Your task to perform on an android device: turn off data saver in the chrome app Image 0: 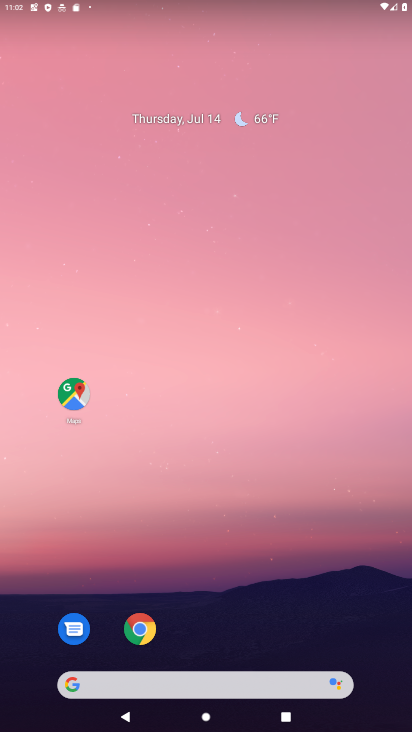
Step 0: click (136, 636)
Your task to perform on an android device: turn off data saver in the chrome app Image 1: 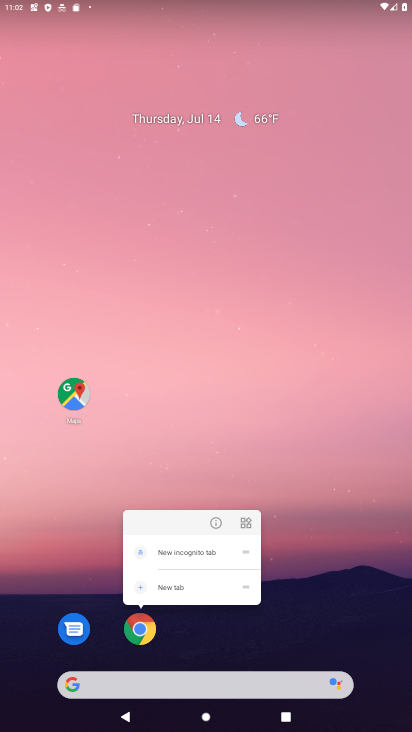
Step 1: click (138, 637)
Your task to perform on an android device: turn off data saver in the chrome app Image 2: 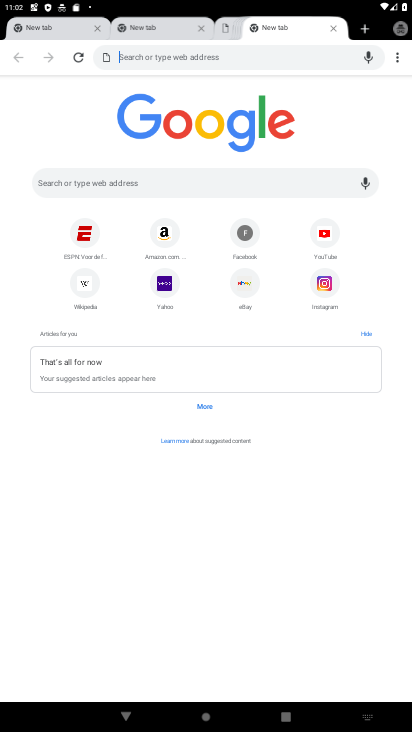
Step 2: drag from (392, 64) to (266, 258)
Your task to perform on an android device: turn off data saver in the chrome app Image 3: 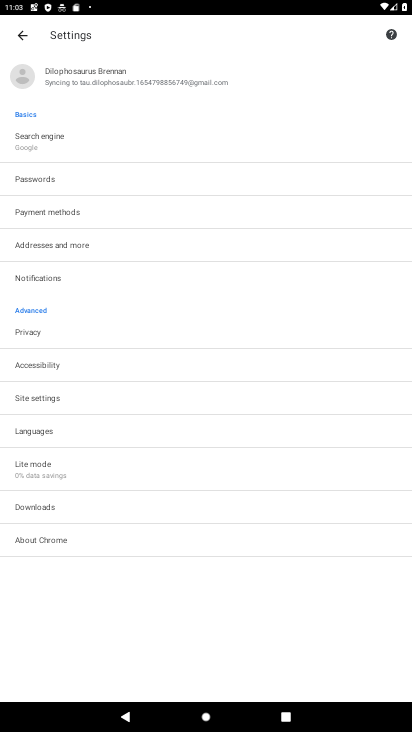
Step 3: click (34, 467)
Your task to perform on an android device: turn off data saver in the chrome app Image 4: 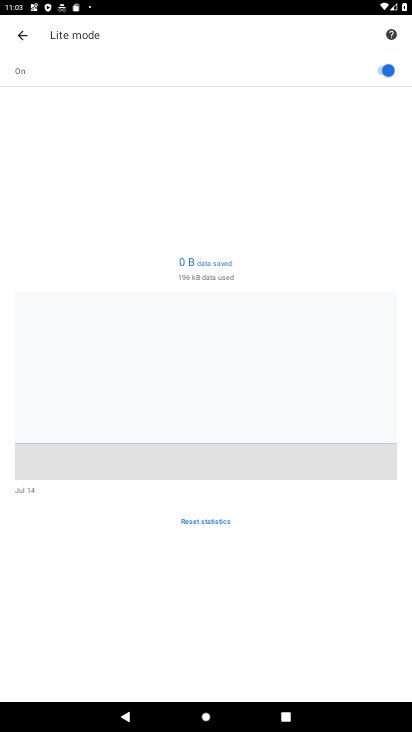
Step 4: click (382, 69)
Your task to perform on an android device: turn off data saver in the chrome app Image 5: 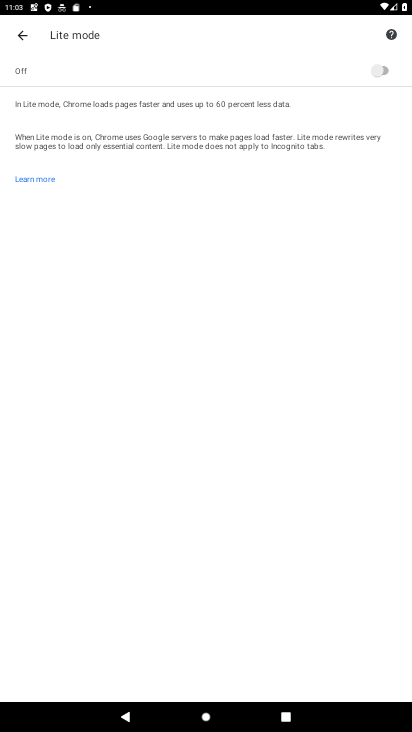
Step 5: task complete